Your task to perform on an android device: toggle data saver in the chrome app Image 0: 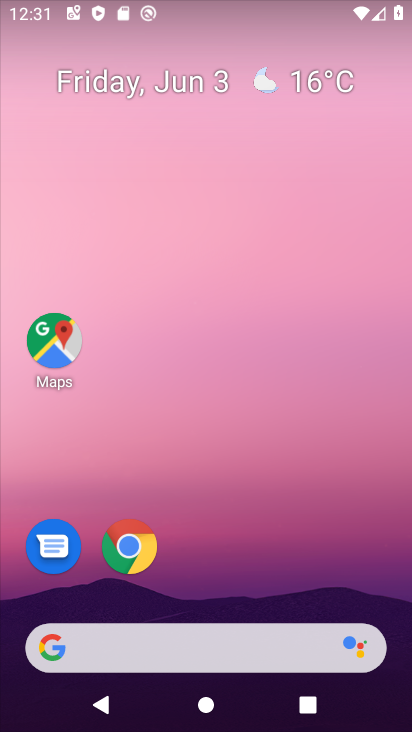
Step 0: click (132, 549)
Your task to perform on an android device: toggle data saver in the chrome app Image 1: 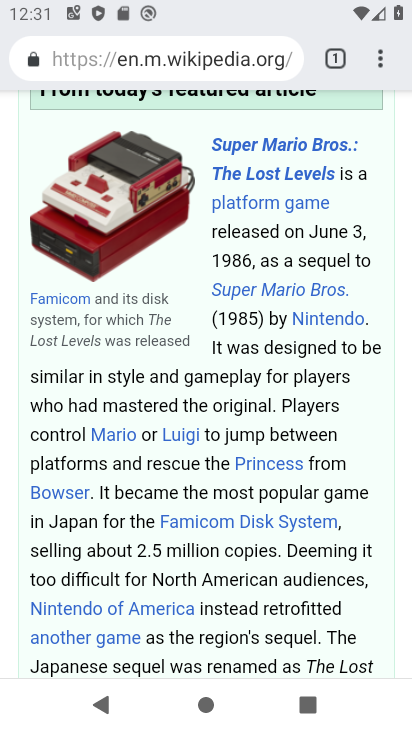
Step 1: click (385, 56)
Your task to perform on an android device: toggle data saver in the chrome app Image 2: 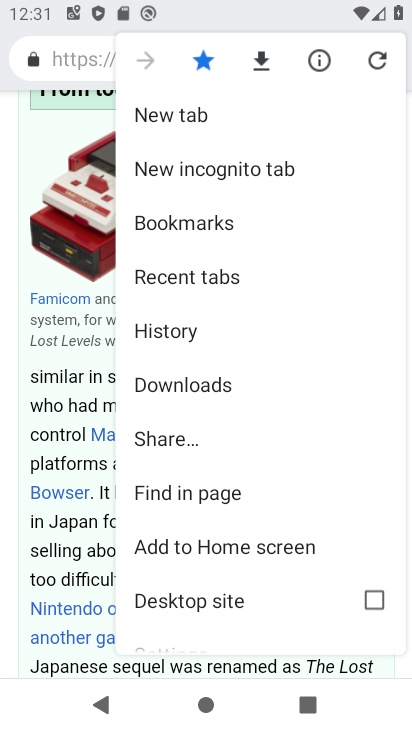
Step 2: drag from (246, 533) to (200, 208)
Your task to perform on an android device: toggle data saver in the chrome app Image 3: 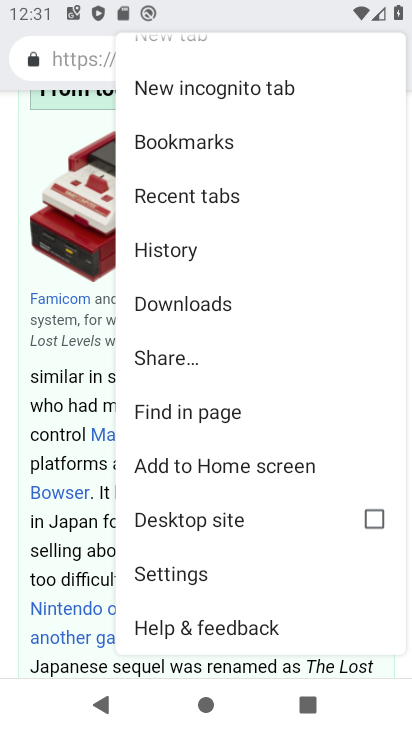
Step 3: click (185, 575)
Your task to perform on an android device: toggle data saver in the chrome app Image 4: 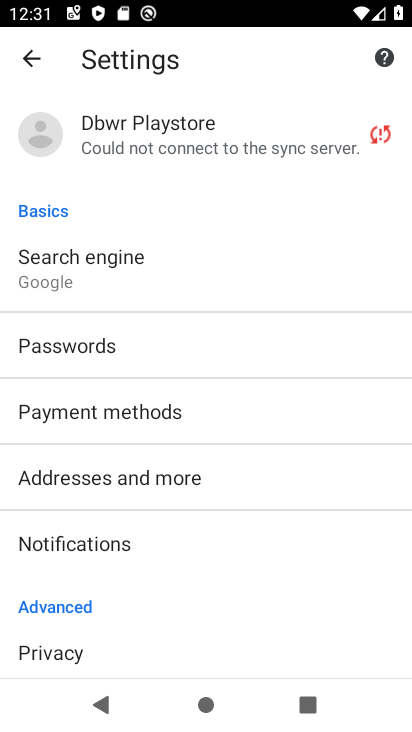
Step 4: drag from (202, 575) to (152, 270)
Your task to perform on an android device: toggle data saver in the chrome app Image 5: 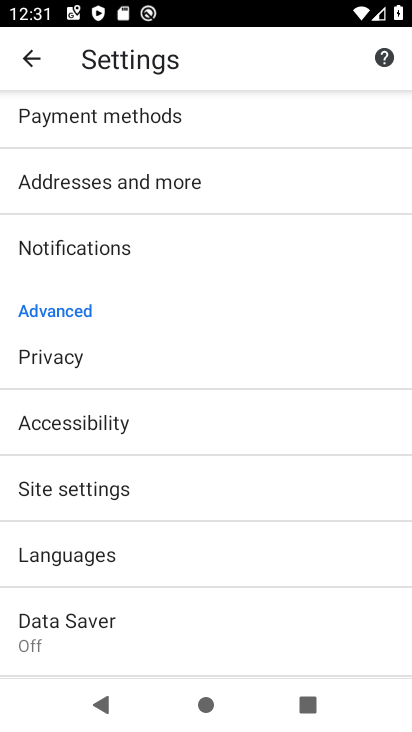
Step 5: click (83, 620)
Your task to perform on an android device: toggle data saver in the chrome app Image 6: 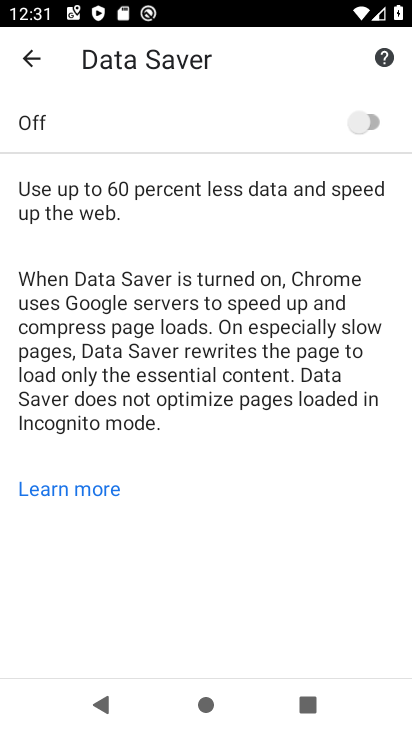
Step 6: click (353, 127)
Your task to perform on an android device: toggle data saver in the chrome app Image 7: 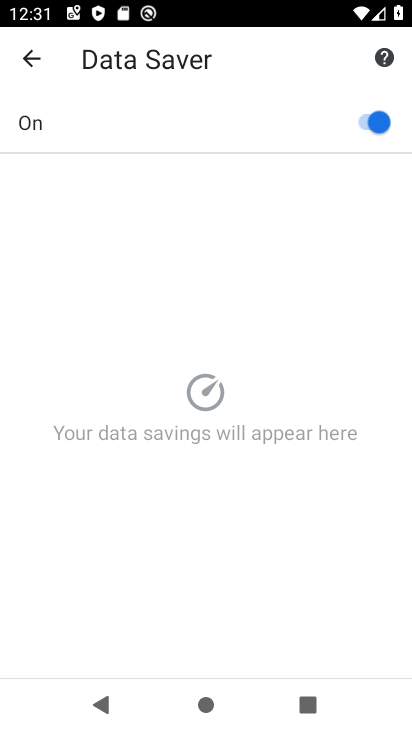
Step 7: task complete